Your task to perform on an android device: check battery use Image 0: 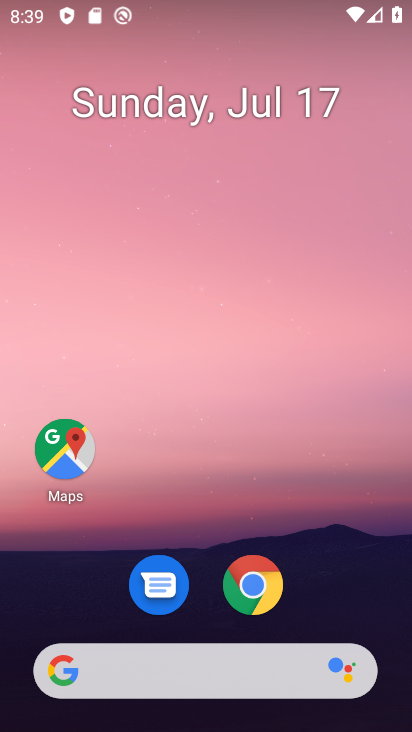
Step 0: drag from (223, 560) to (313, 143)
Your task to perform on an android device: check battery use Image 1: 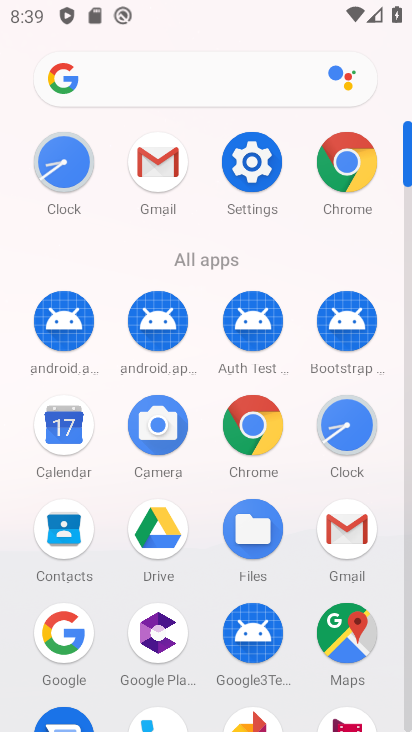
Step 1: click (253, 161)
Your task to perform on an android device: check battery use Image 2: 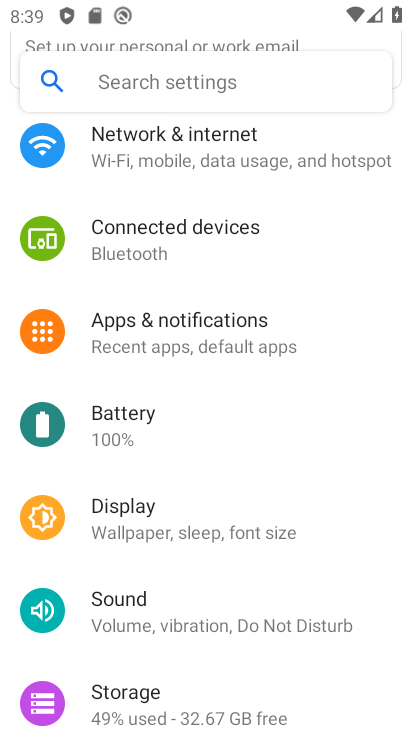
Step 2: click (128, 426)
Your task to perform on an android device: check battery use Image 3: 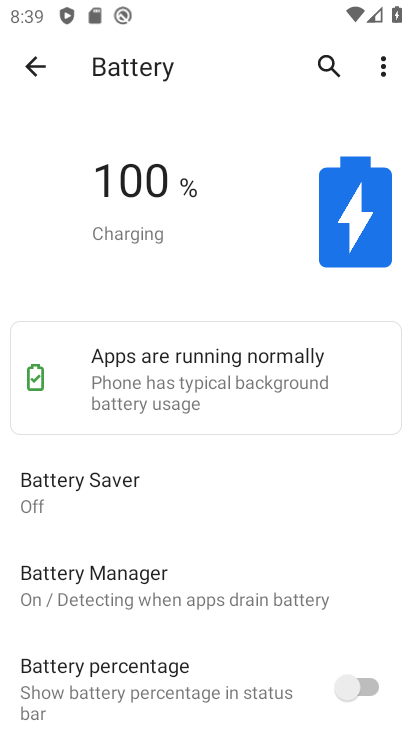
Step 3: click (384, 70)
Your task to perform on an android device: check battery use Image 4: 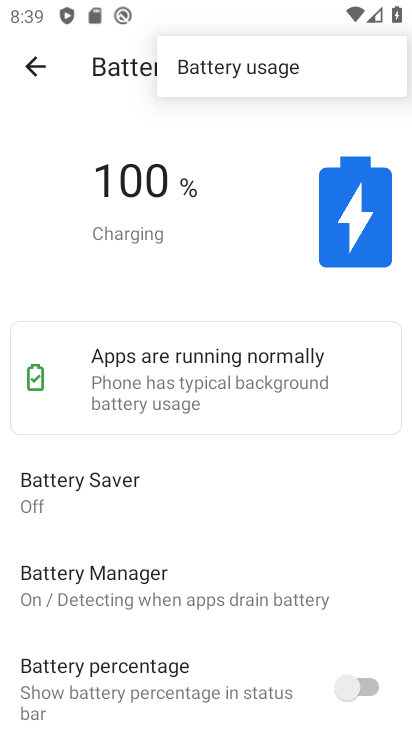
Step 4: click (327, 71)
Your task to perform on an android device: check battery use Image 5: 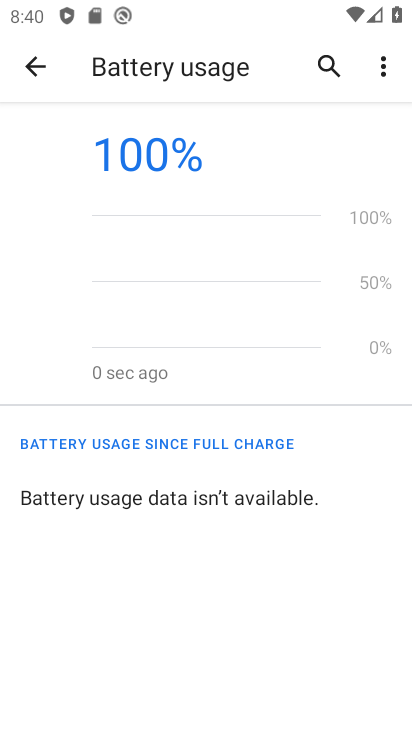
Step 5: task complete